Your task to perform on an android device: turn on airplane mode Image 0: 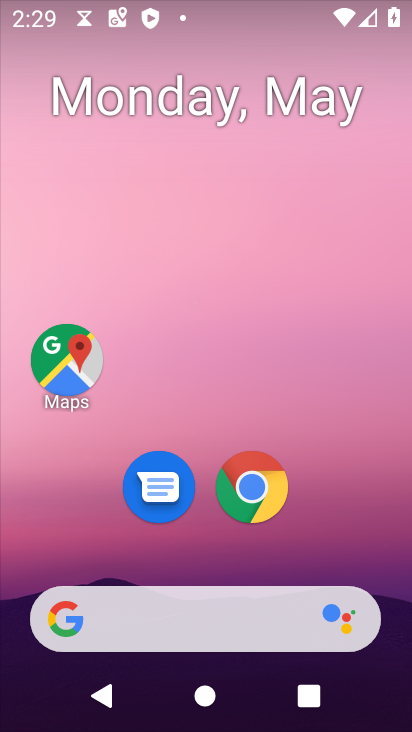
Step 0: drag from (393, 574) to (275, 133)
Your task to perform on an android device: turn on airplane mode Image 1: 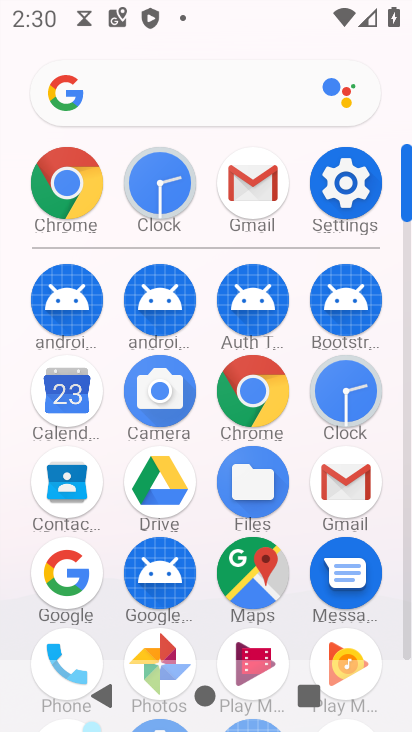
Step 1: click (364, 171)
Your task to perform on an android device: turn on airplane mode Image 2: 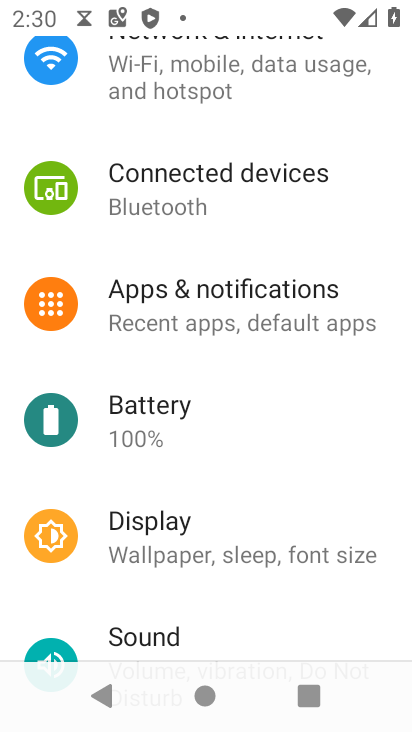
Step 2: click (260, 92)
Your task to perform on an android device: turn on airplane mode Image 3: 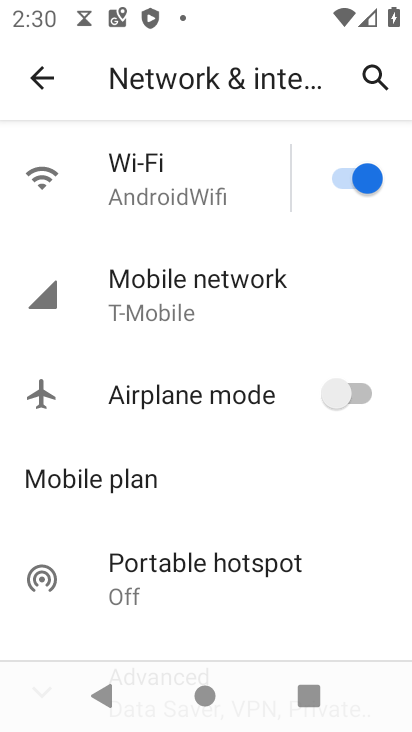
Step 3: click (362, 389)
Your task to perform on an android device: turn on airplane mode Image 4: 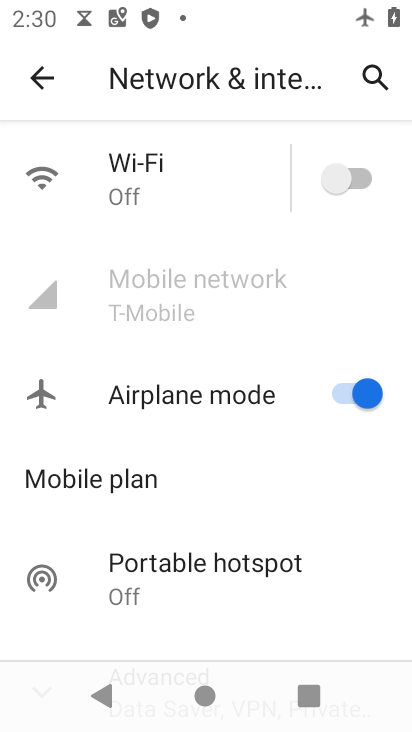
Step 4: task complete